Your task to perform on an android device: What are the best selling refrigerators at Home Depot? Image 0: 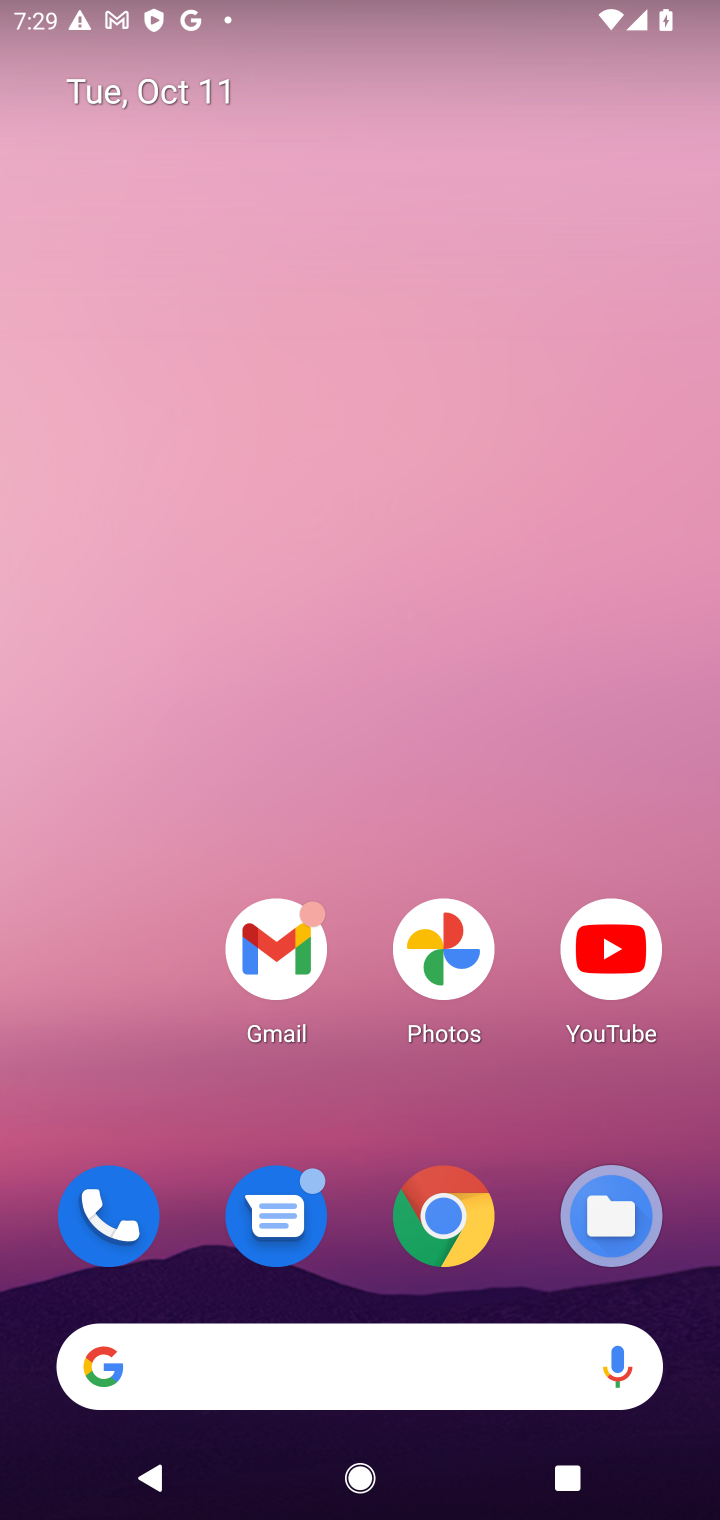
Step 0: click (459, 1238)
Your task to perform on an android device: What are the best selling refrigerators at Home Depot? Image 1: 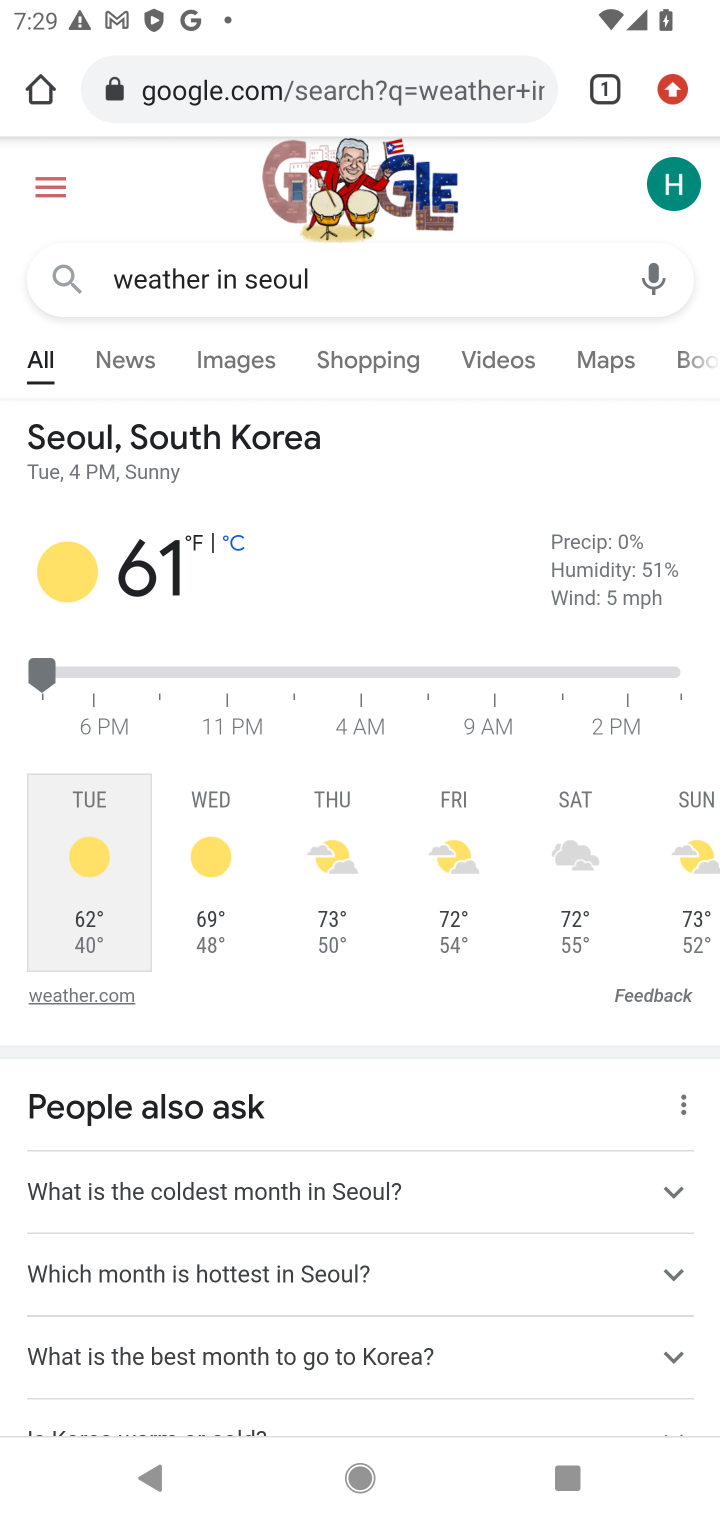
Step 1: click (393, 282)
Your task to perform on an android device: What are the best selling refrigerators at Home Depot? Image 2: 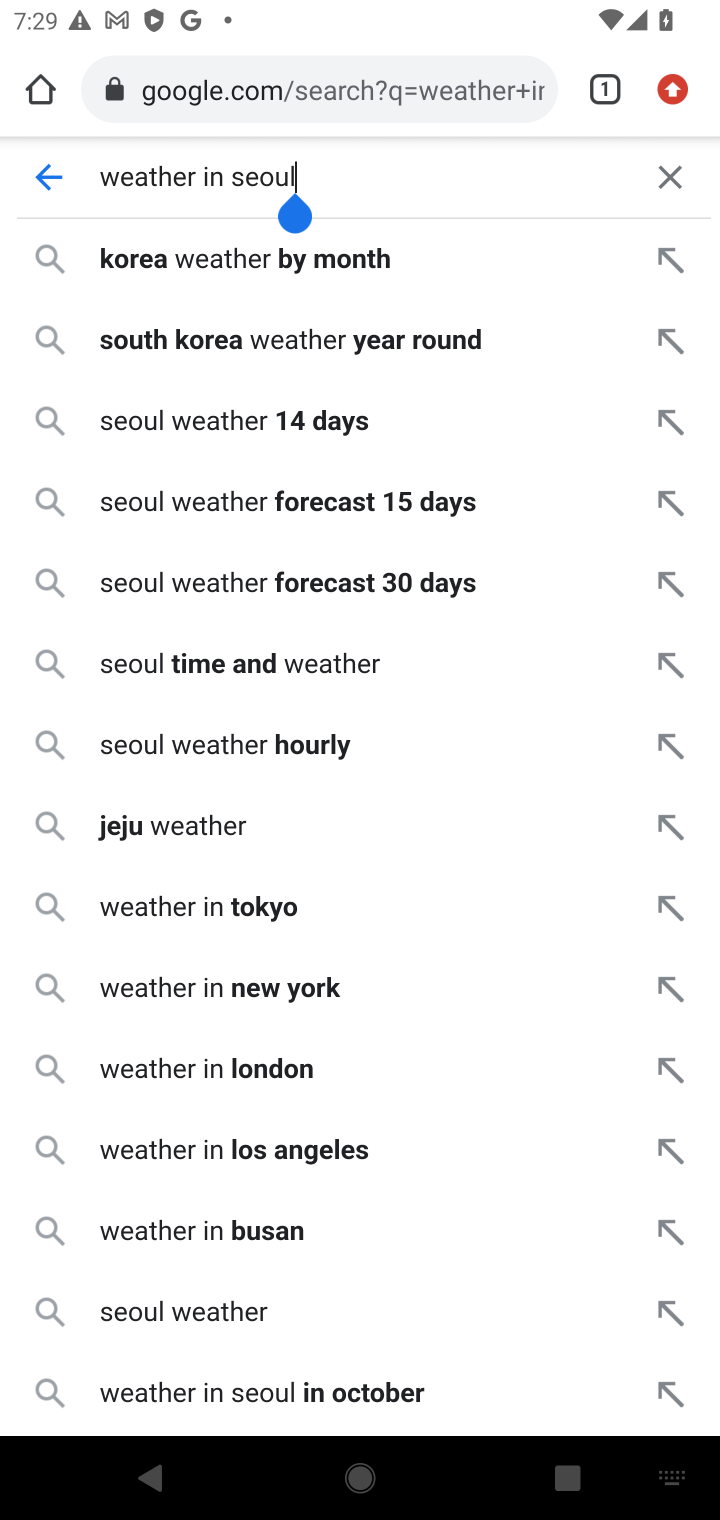
Step 2: click (676, 185)
Your task to perform on an android device: What are the best selling refrigerators at Home Depot? Image 3: 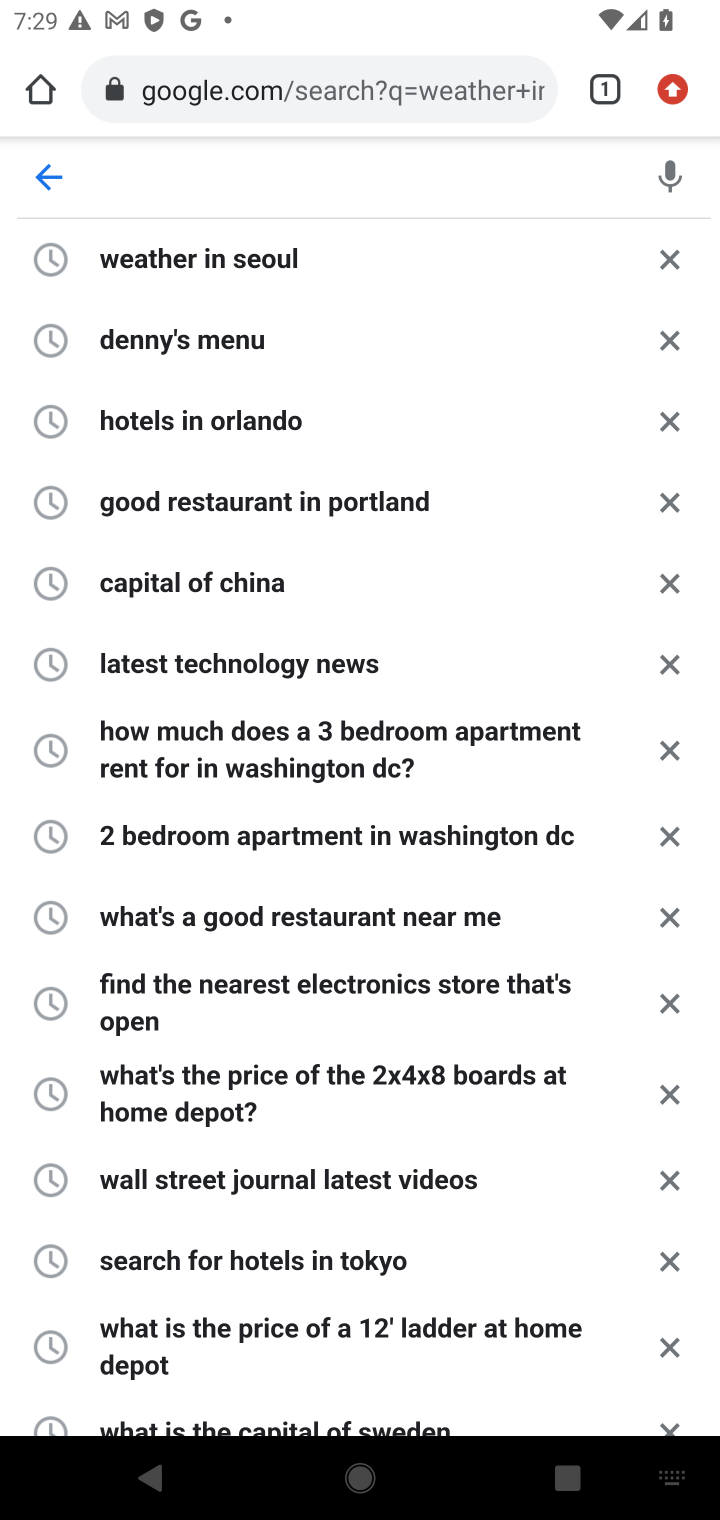
Step 3: type "What are the best selling refrigerators at Home Depot?"
Your task to perform on an android device: What are the best selling refrigerators at Home Depot? Image 4: 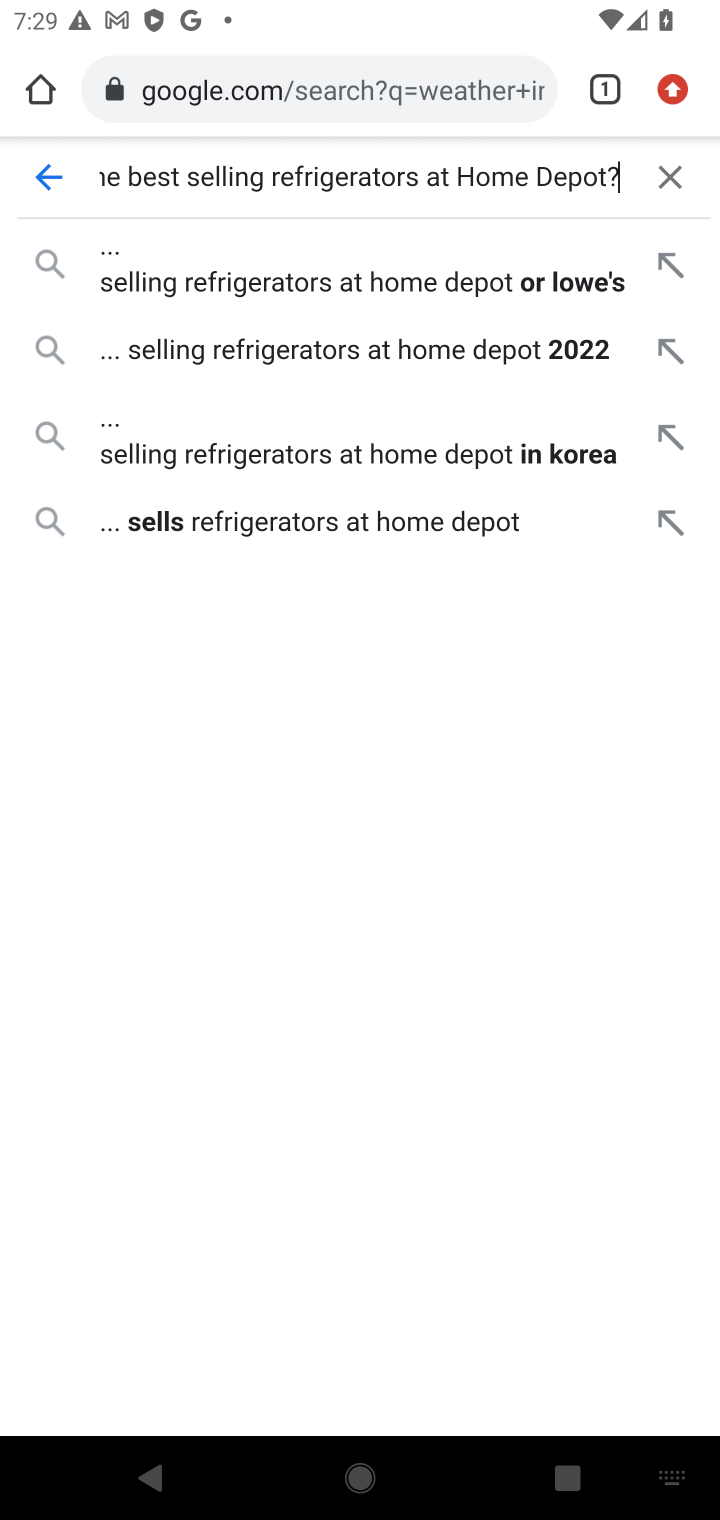
Step 4: press enter
Your task to perform on an android device: What are the best selling refrigerators at Home Depot? Image 5: 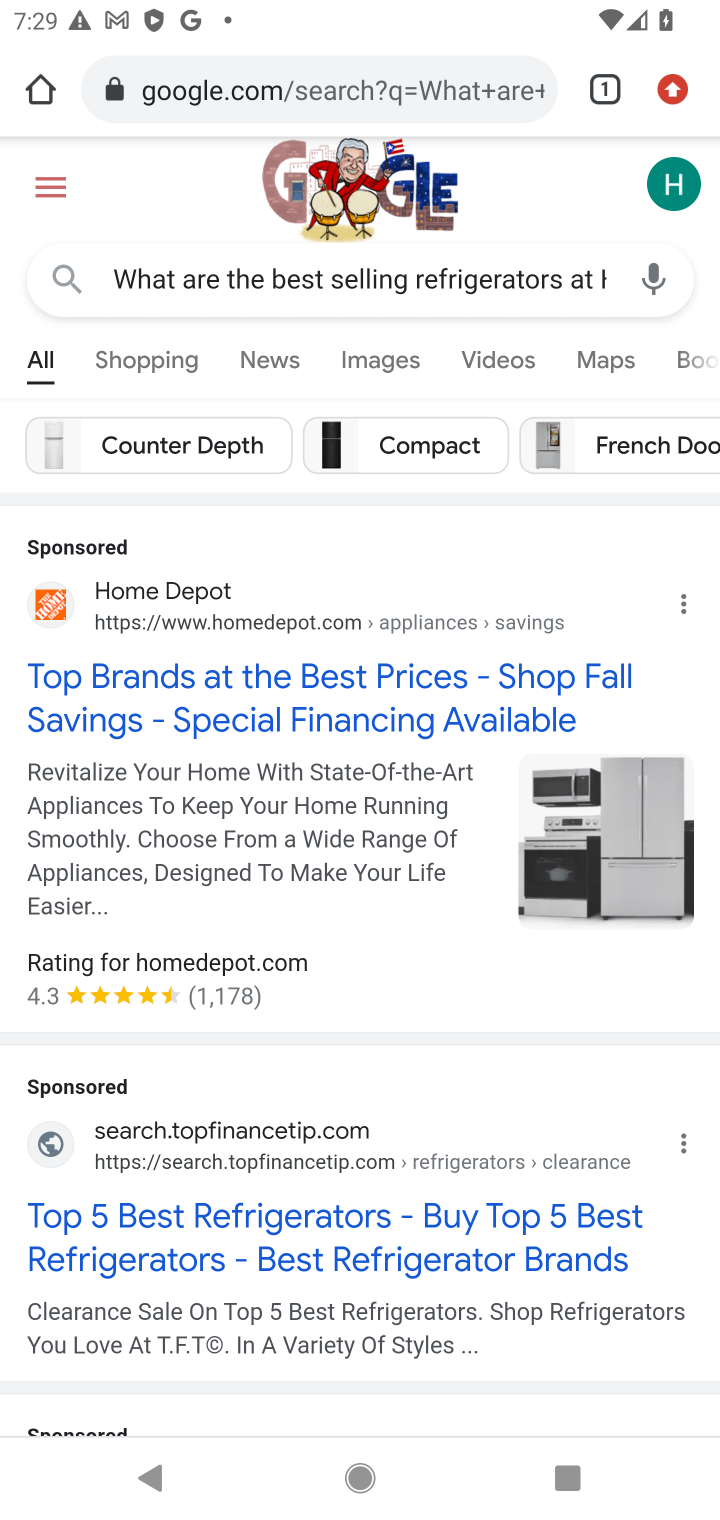
Step 5: click (392, 727)
Your task to perform on an android device: What are the best selling refrigerators at Home Depot? Image 6: 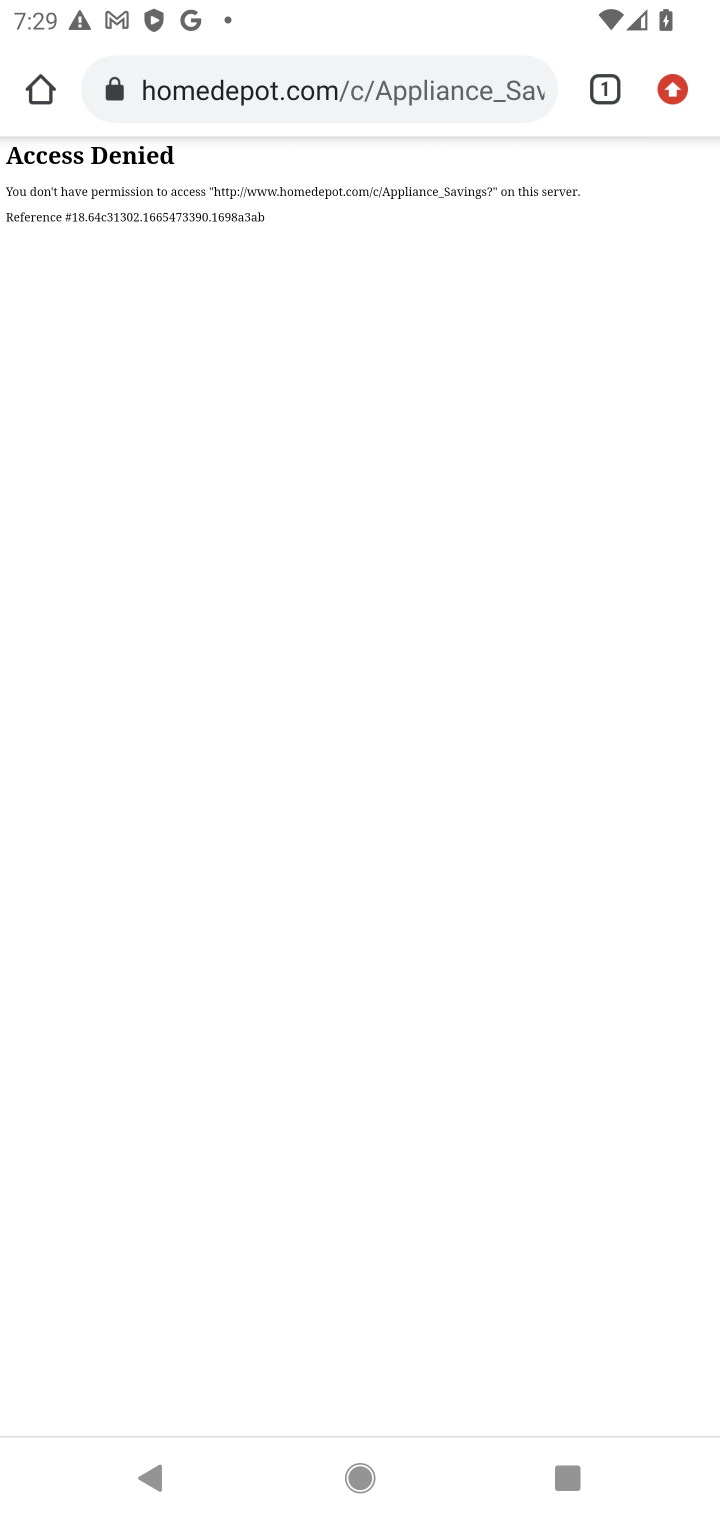
Step 6: task complete